Your task to perform on an android device: make emails show in primary in the gmail app Image 0: 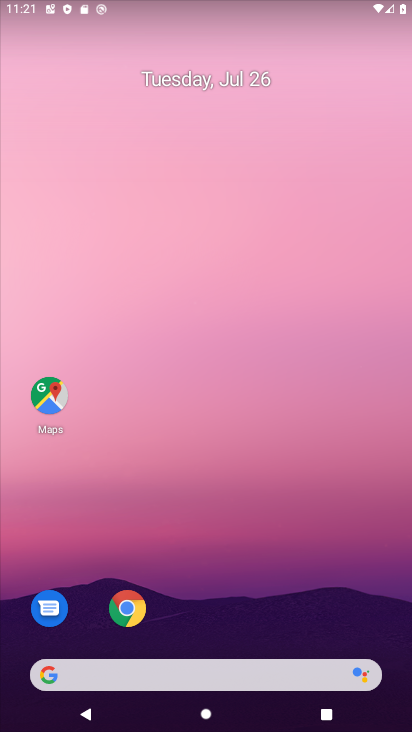
Step 0: drag from (255, 619) to (280, 23)
Your task to perform on an android device: make emails show in primary in the gmail app Image 1: 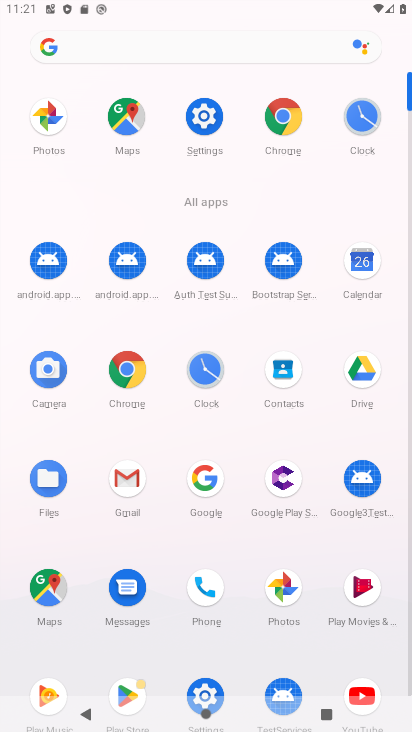
Step 1: click (133, 479)
Your task to perform on an android device: make emails show in primary in the gmail app Image 2: 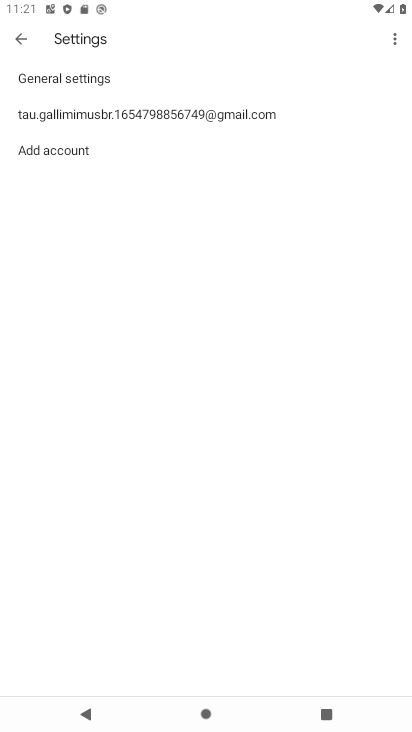
Step 2: click (142, 109)
Your task to perform on an android device: make emails show in primary in the gmail app Image 3: 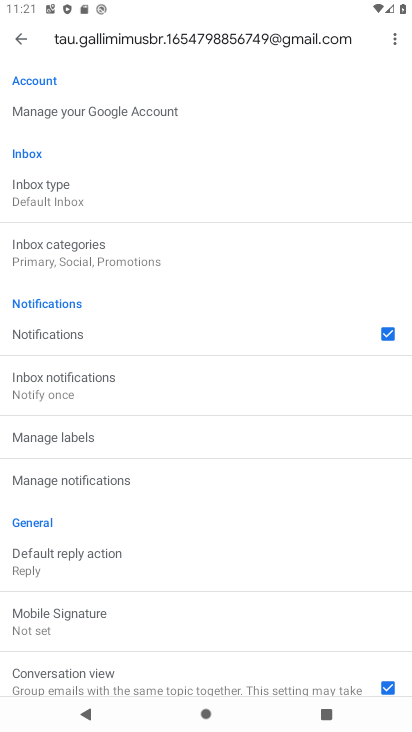
Step 3: task complete